Your task to perform on an android device: turn on location history Image 0: 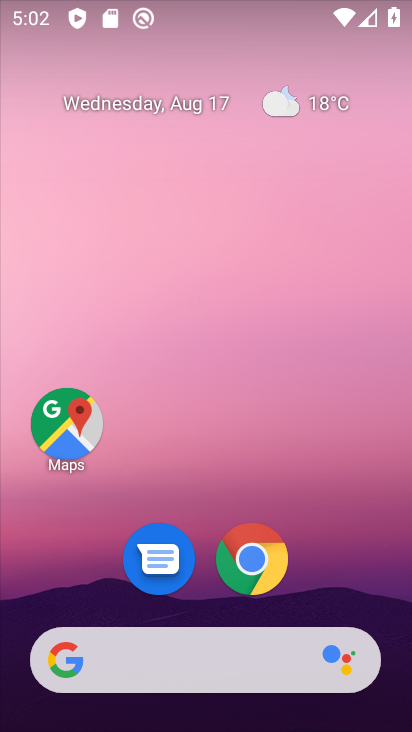
Step 0: drag from (203, 642) to (200, 160)
Your task to perform on an android device: turn on location history Image 1: 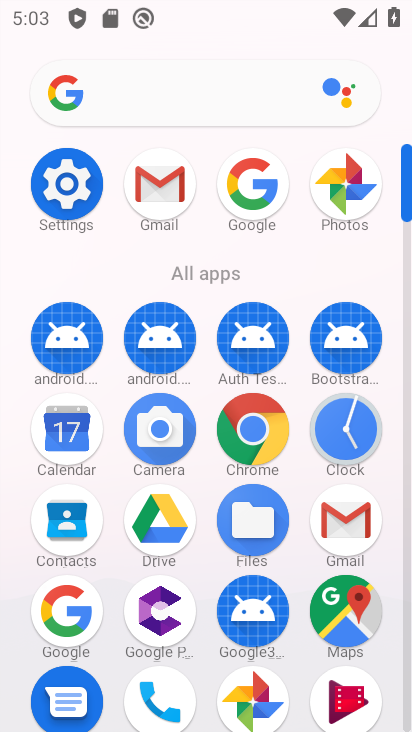
Step 1: click (48, 175)
Your task to perform on an android device: turn on location history Image 2: 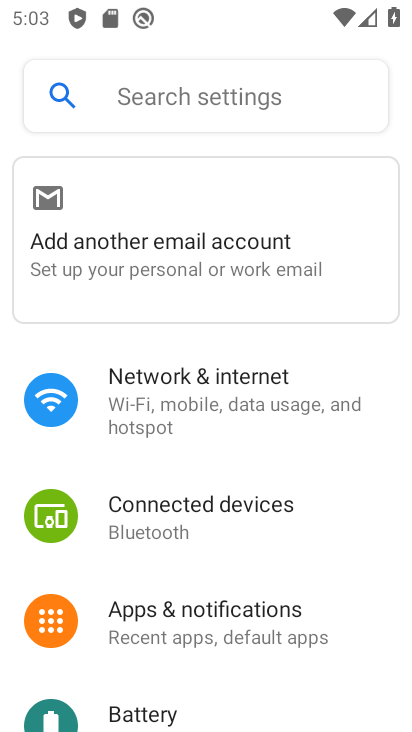
Step 2: drag from (264, 411) to (307, 38)
Your task to perform on an android device: turn on location history Image 3: 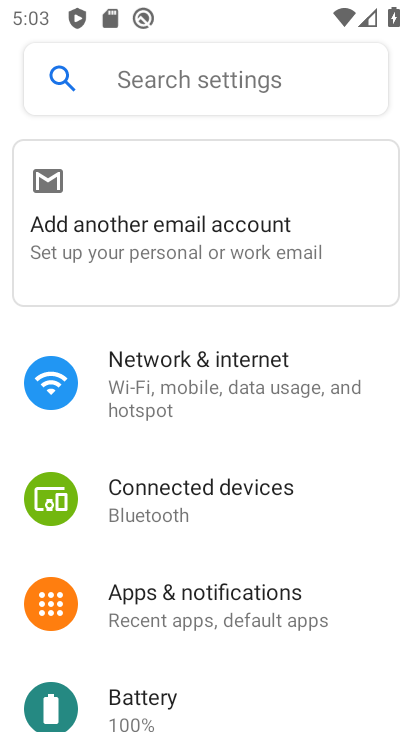
Step 3: drag from (252, 147) to (222, 7)
Your task to perform on an android device: turn on location history Image 4: 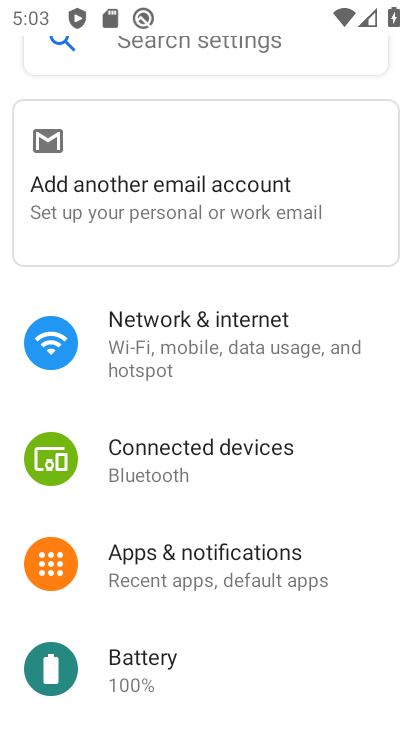
Step 4: drag from (285, 486) to (220, 183)
Your task to perform on an android device: turn on location history Image 5: 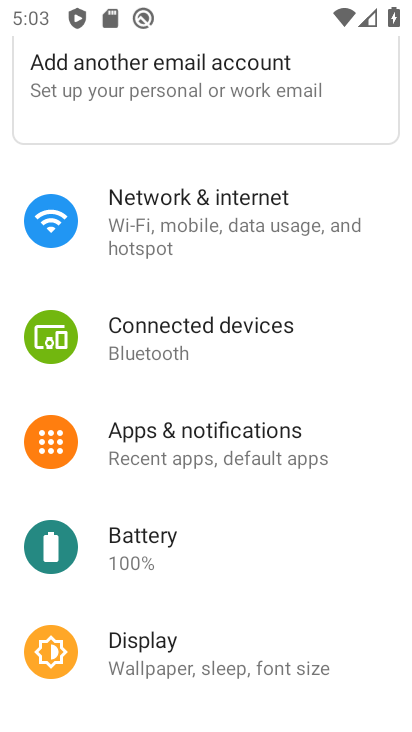
Step 5: drag from (141, 588) to (126, 61)
Your task to perform on an android device: turn on location history Image 6: 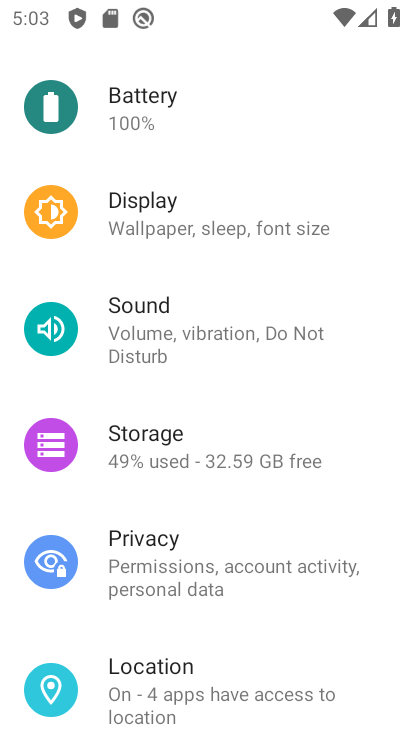
Step 6: click (157, 658)
Your task to perform on an android device: turn on location history Image 7: 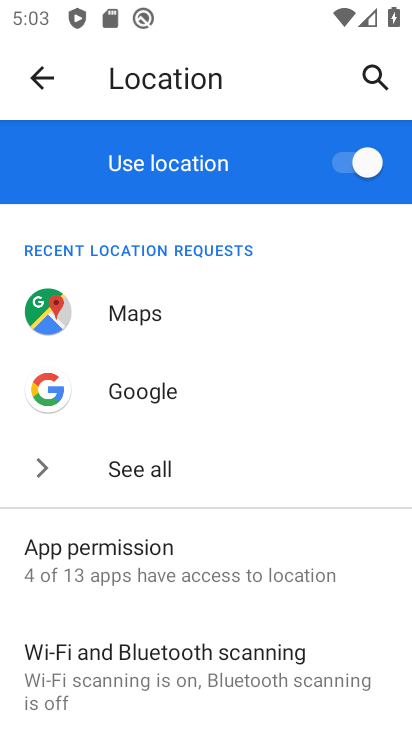
Step 7: drag from (163, 622) to (230, 62)
Your task to perform on an android device: turn on location history Image 8: 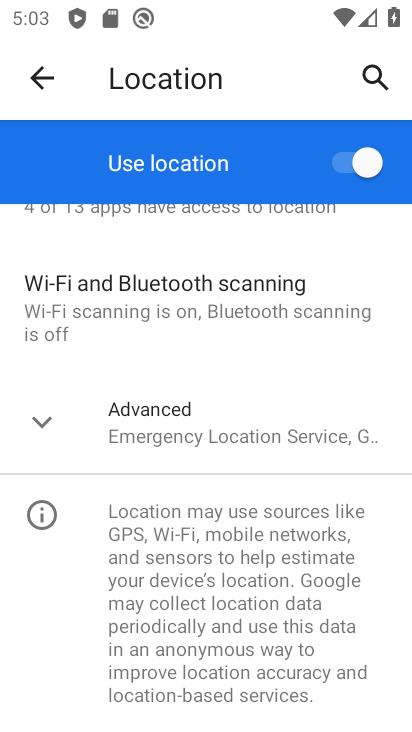
Step 8: click (167, 416)
Your task to perform on an android device: turn on location history Image 9: 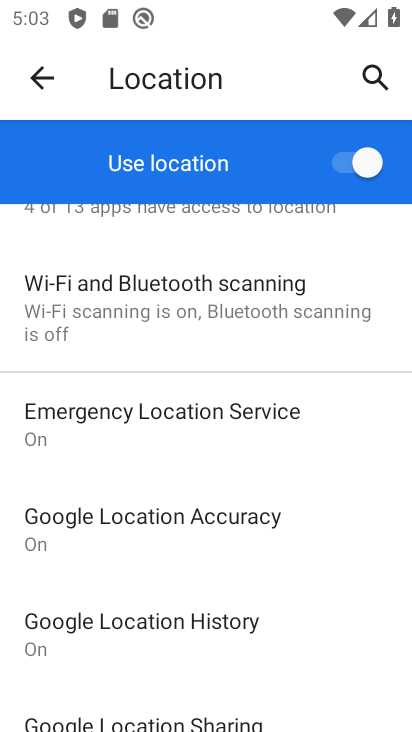
Step 9: click (180, 618)
Your task to perform on an android device: turn on location history Image 10: 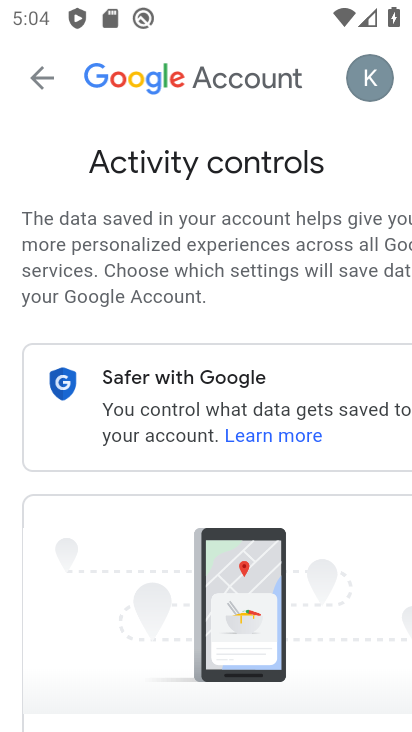
Step 10: task complete